Your task to perform on an android device: move a message to another label in the gmail app Image 0: 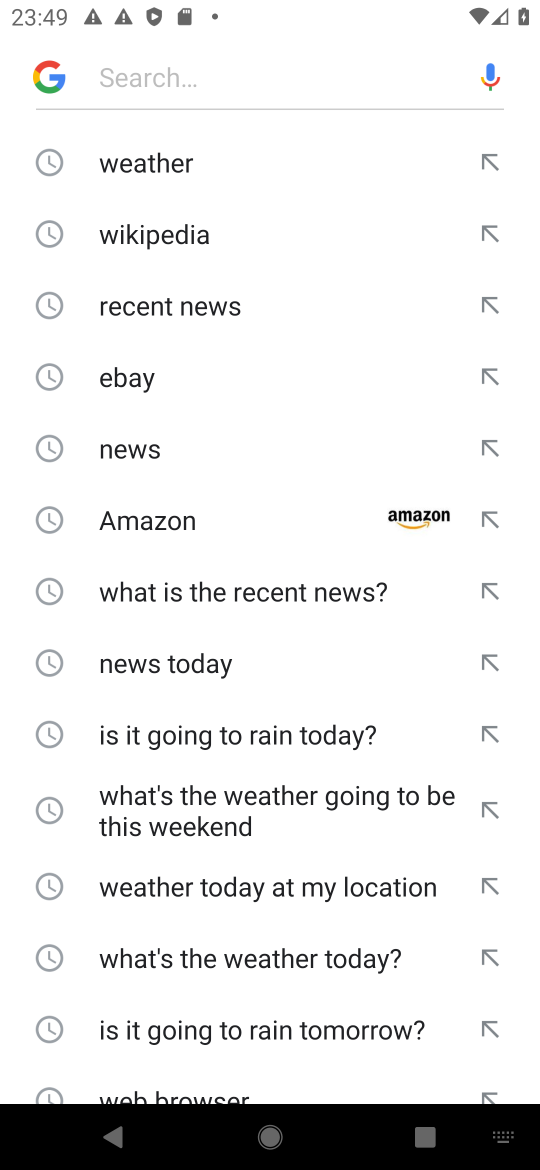
Step 0: press home button
Your task to perform on an android device: move a message to another label in the gmail app Image 1: 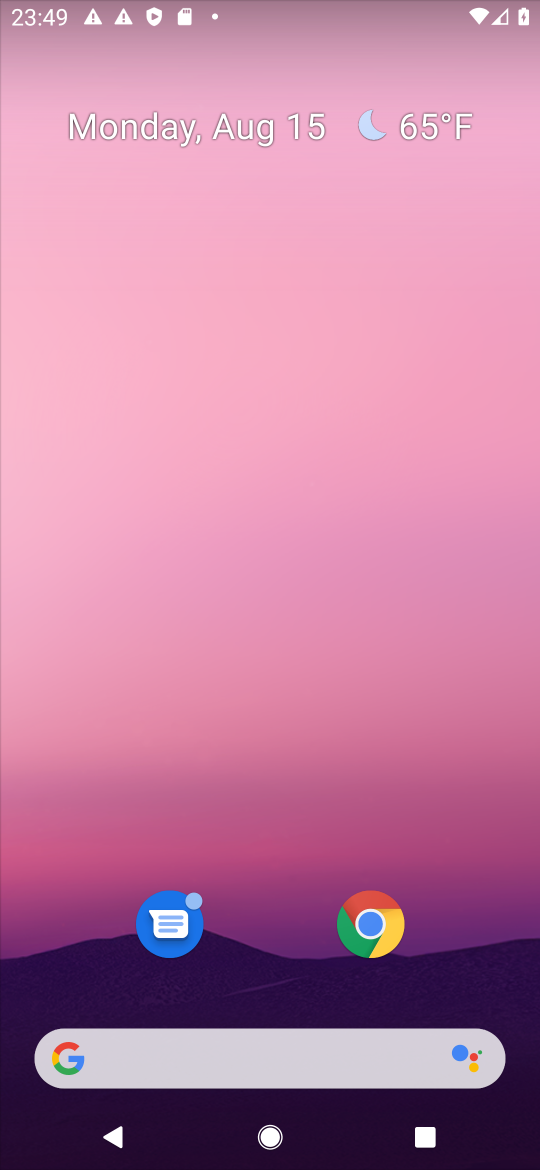
Step 1: drag from (292, 890) to (407, 241)
Your task to perform on an android device: move a message to another label in the gmail app Image 2: 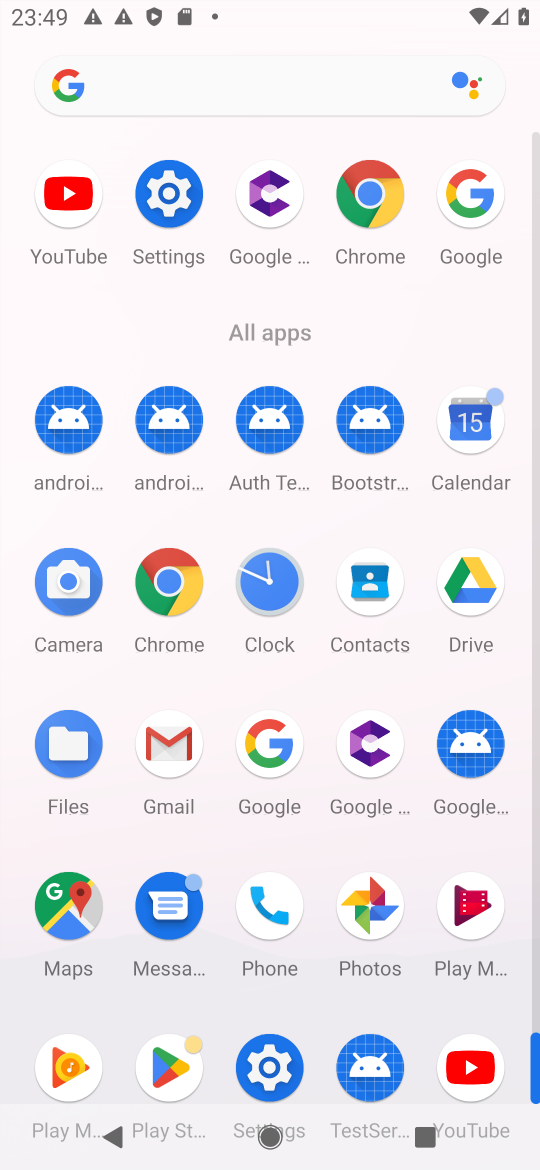
Step 2: click (158, 754)
Your task to perform on an android device: move a message to another label in the gmail app Image 3: 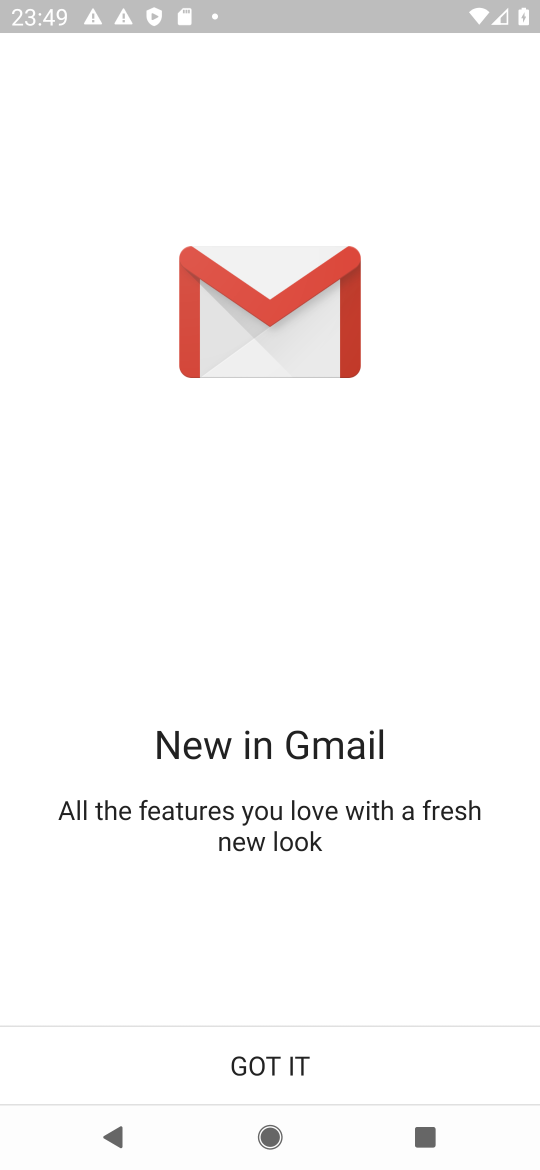
Step 3: click (258, 1075)
Your task to perform on an android device: move a message to another label in the gmail app Image 4: 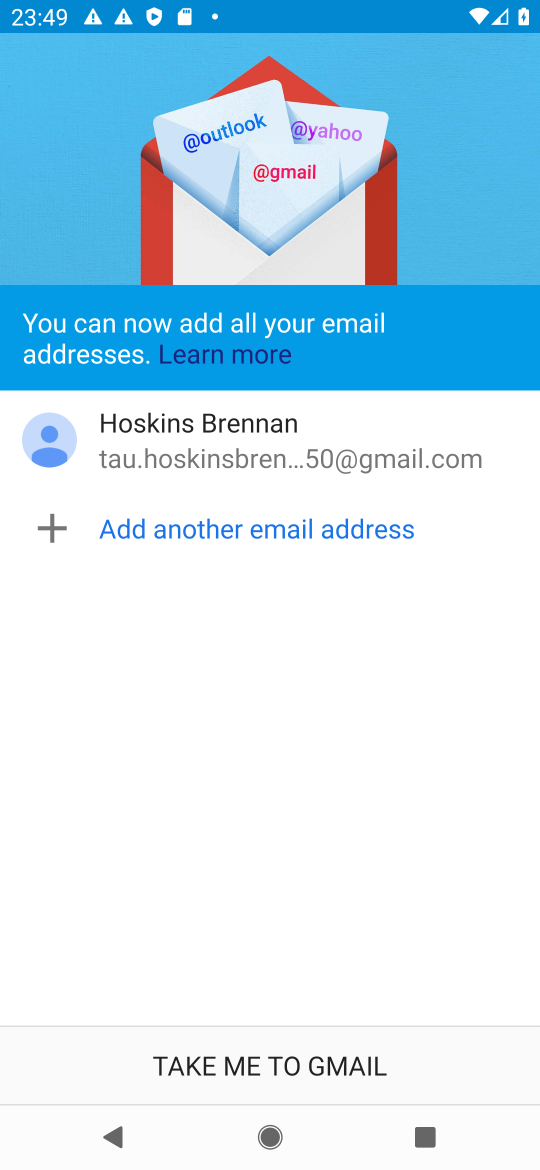
Step 4: click (258, 1075)
Your task to perform on an android device: move a message to another label in the gmail app Image 5: 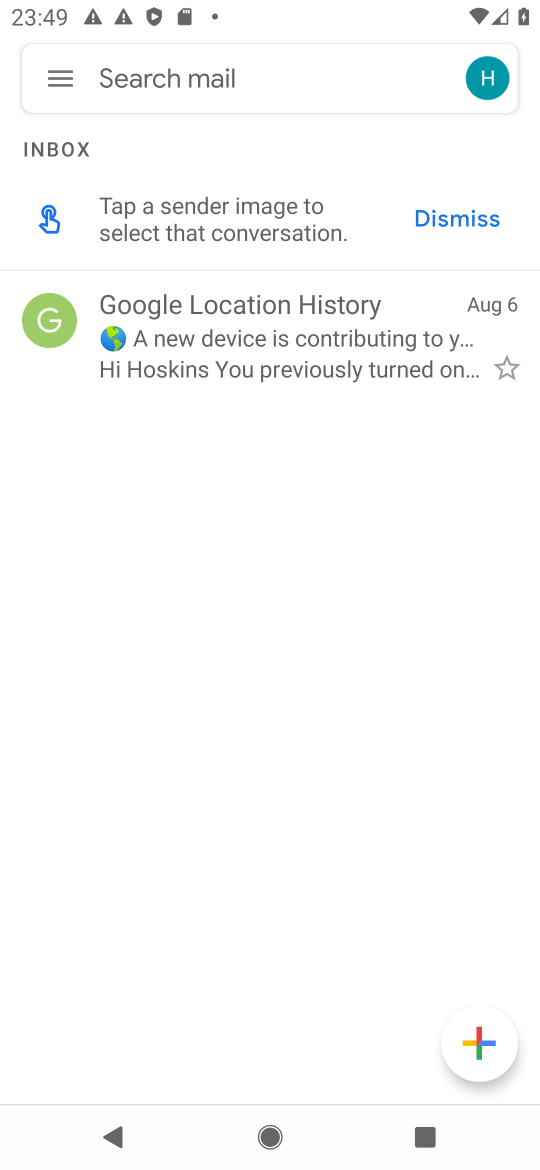
Step 5: click (68, 97)
Your task to perform on an android device: move a message to another label in the gmail app Image 6: 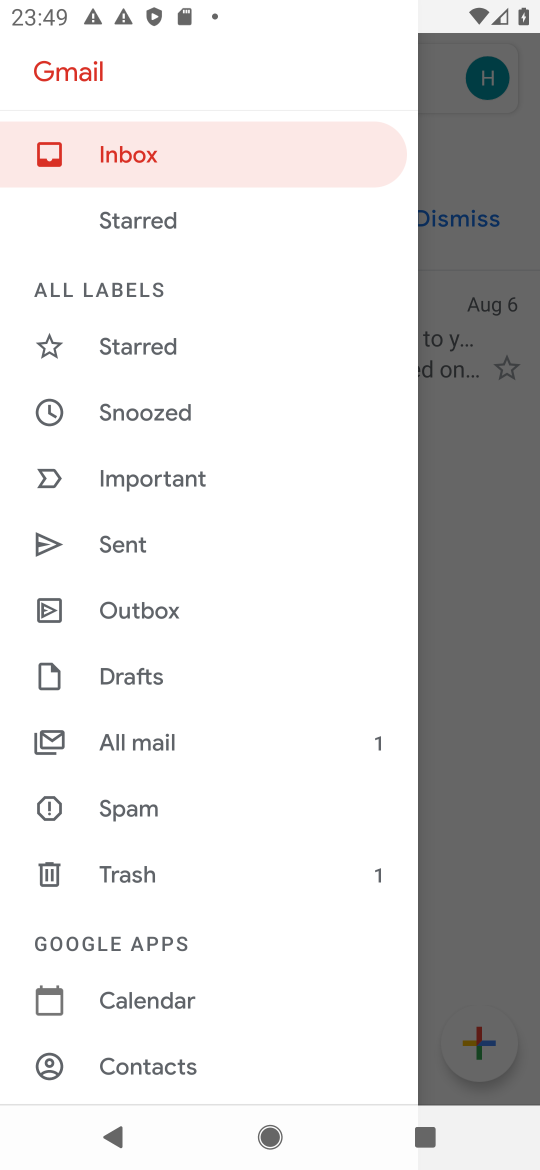
Step 6: click (193, 739)
Your task to perform on an android device: move a message to another label in the gmail app Image 7: 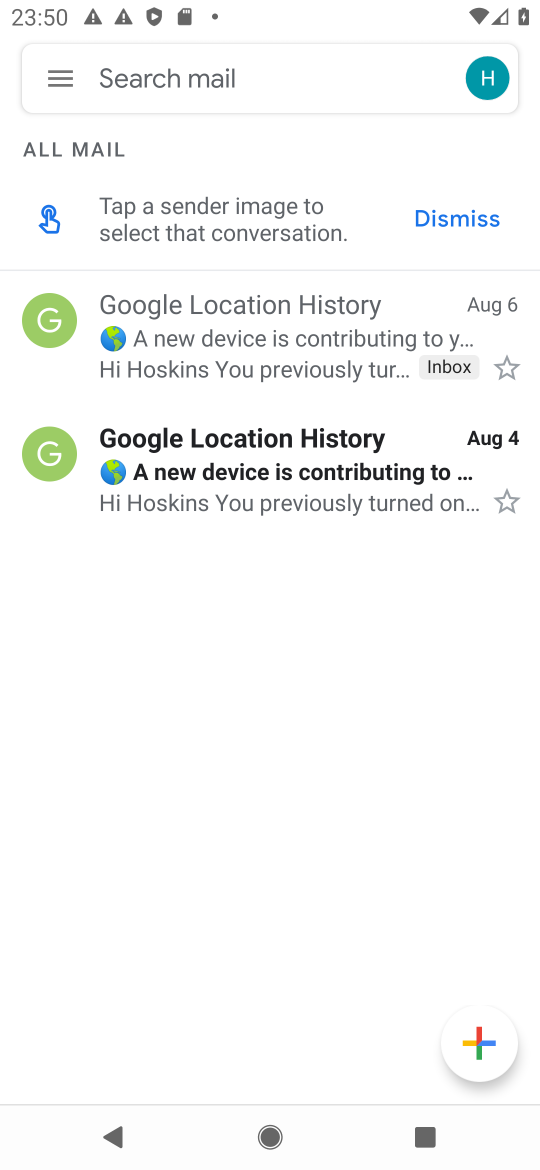
Step 7: click (331, 498)
Your task to perform on an android device: move a message to another label in the gmail app Image 8: 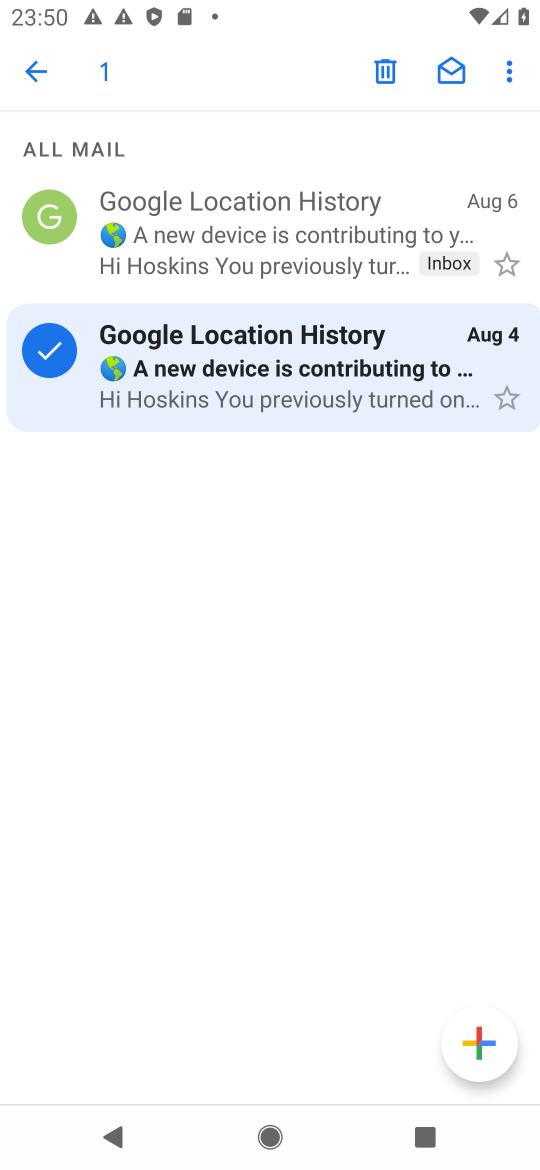
Step 8: click (504, 62)
Your task to perform on an android device: move a message to another label in the gmail app Image 9: 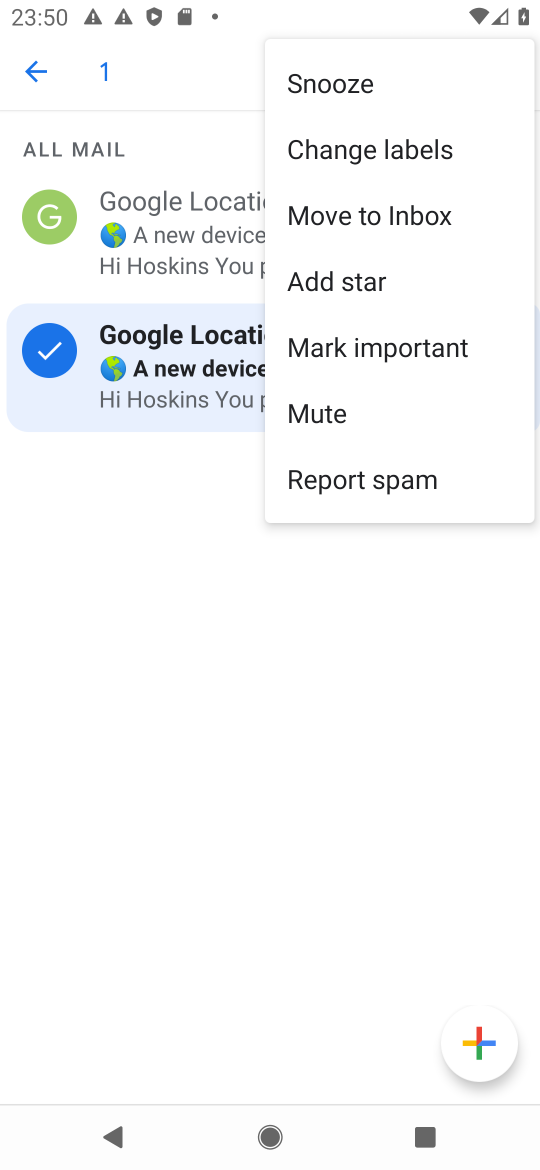
Step 9: click (391, 158)
Your task to perform on an android device: move a message to another label in the gmail app Image 10: 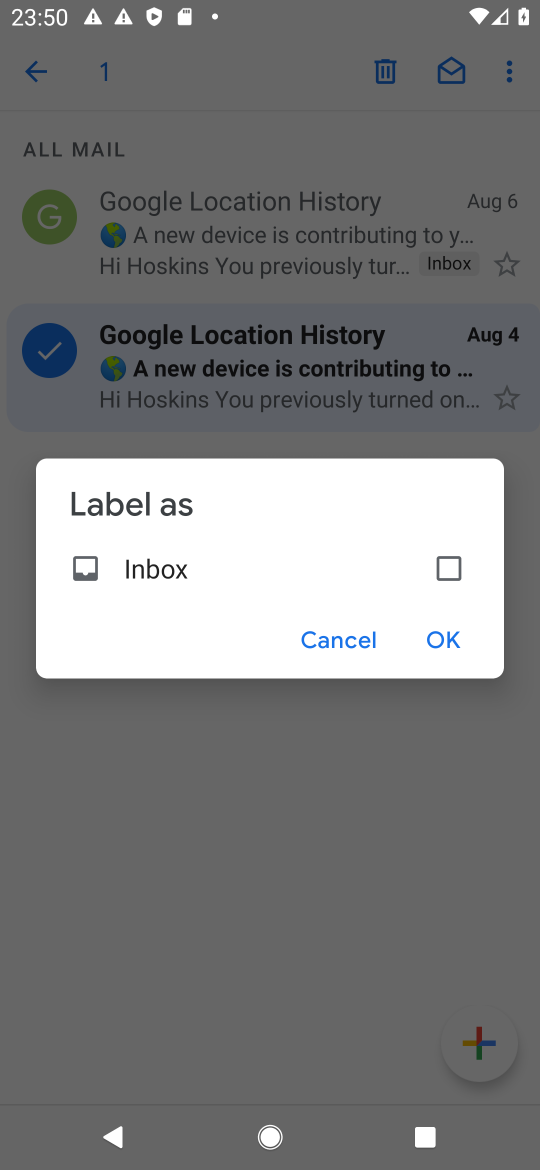
Step 10: click (447, 558)
Your task to perform on an android device: move a message to another label in the gmail app Image 11: 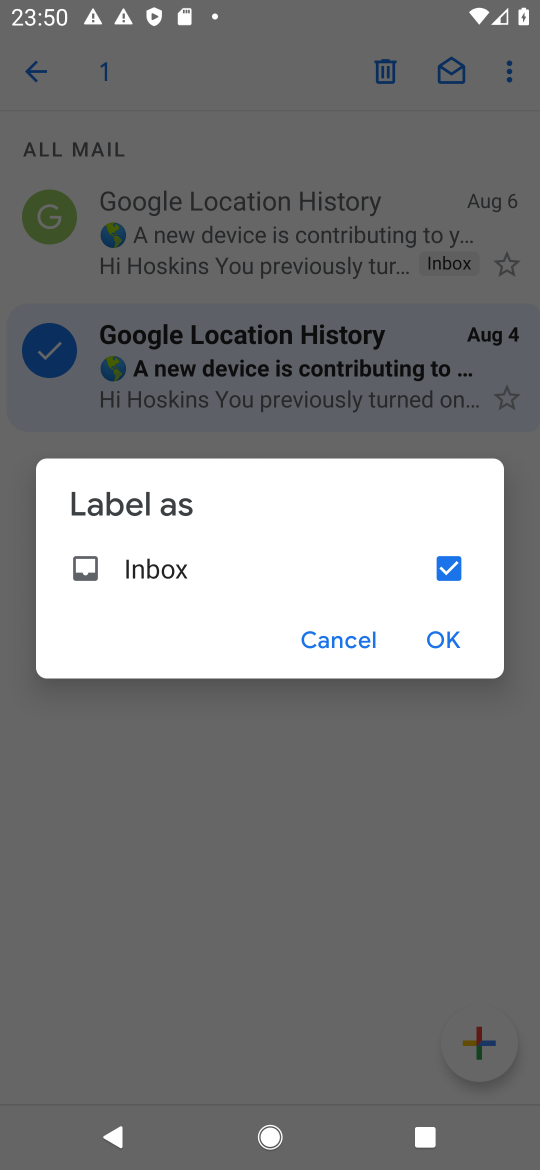
Step 11: click (446, 624)
Your task to perform on an android device: move a message to another label in the gmail app Image 12: 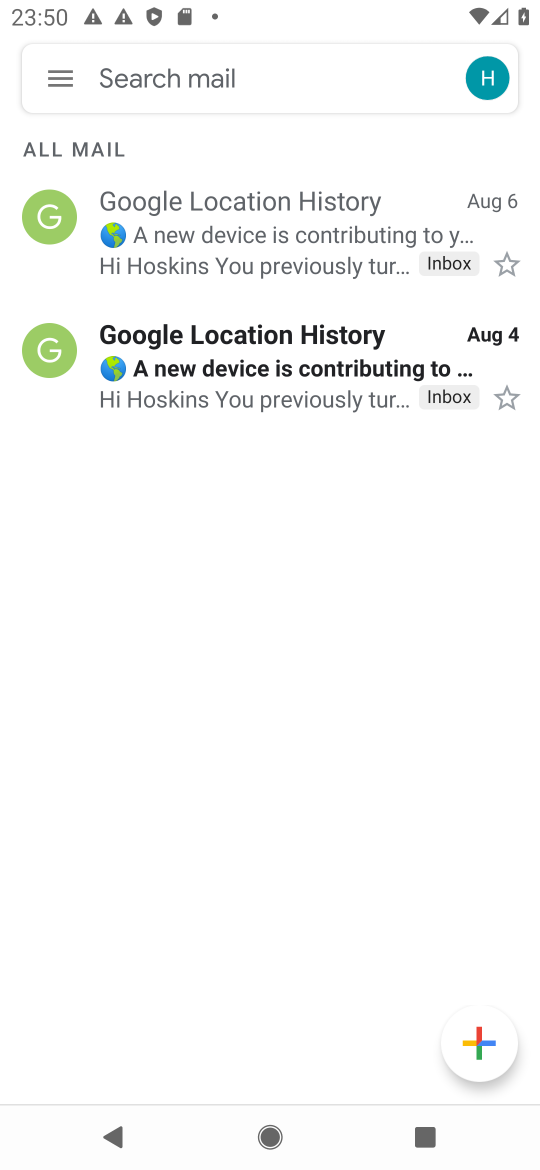
Step 12: task complete